Your task to perform on an android device: empty trash in the gmail app Image 0: 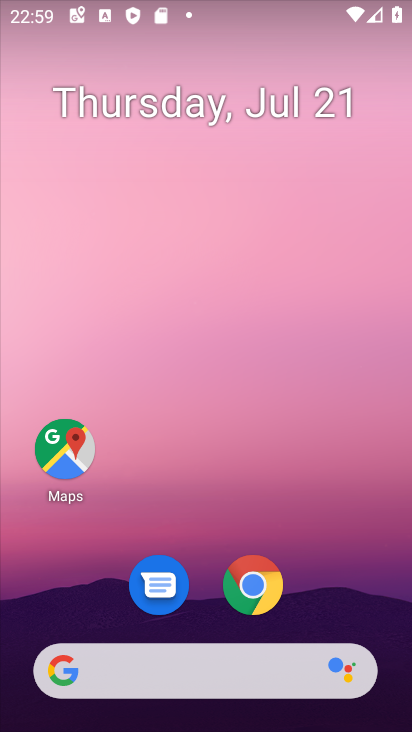
Step 0: drag from (220, 521) to (290, 9)
Your task to perform on an android device: empty trash in the gmail app Image 1: 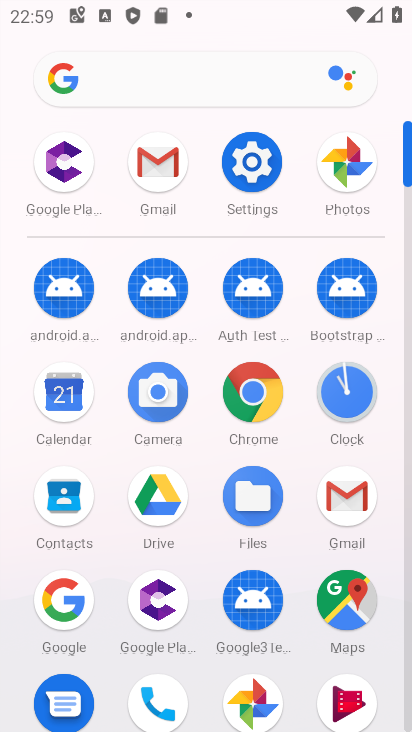
Step 1: click (163, 162)
Your task to perform on an android device: empty trash in the gmail app Image 2: 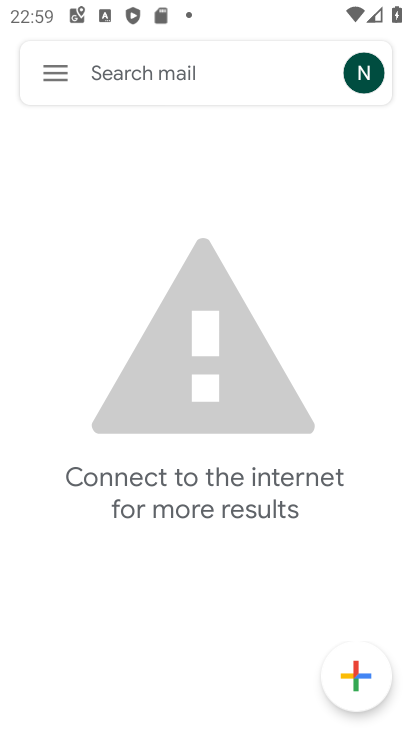
Step 2: click (58, 73)
Your task to perform on an android device: empty trash in the gmail app Image 3: 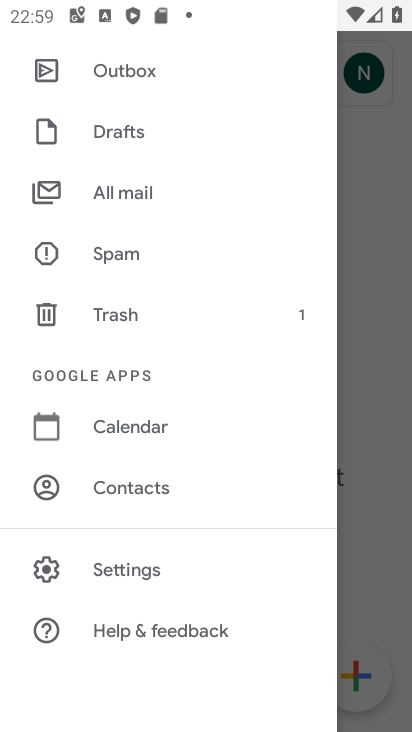
Step 3: click (115, 321)
Your task to perform on an android device: empty trash in the gmail app Image 4: 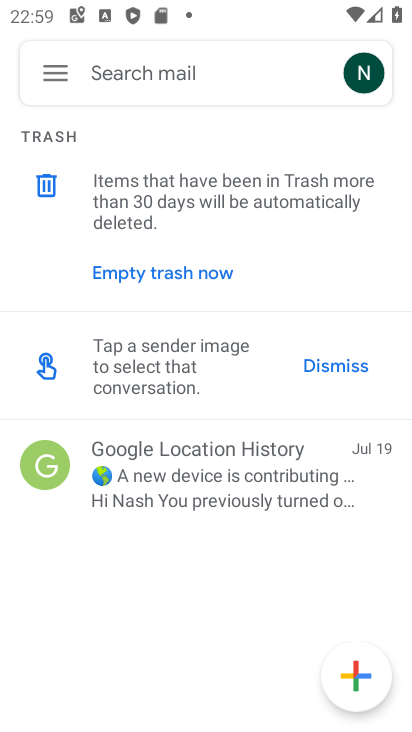
Step 4: click (169, 264)
Your task to perform on an android device: empty trash in the gmail app Image 5: 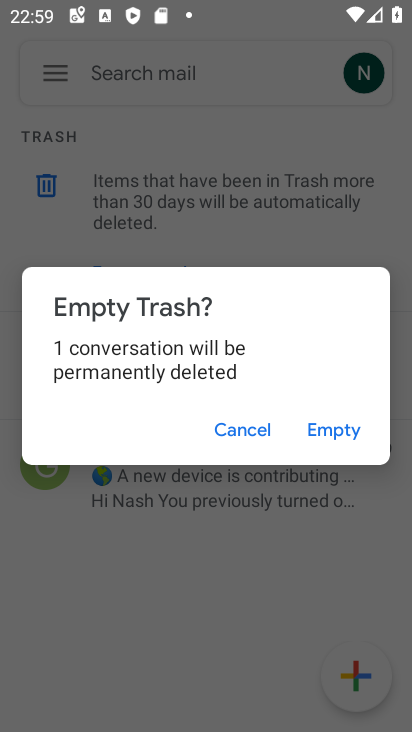
Step 5: click (333, 426)
Your task to perform on an android device: empty trash in the gmail app Image 6: 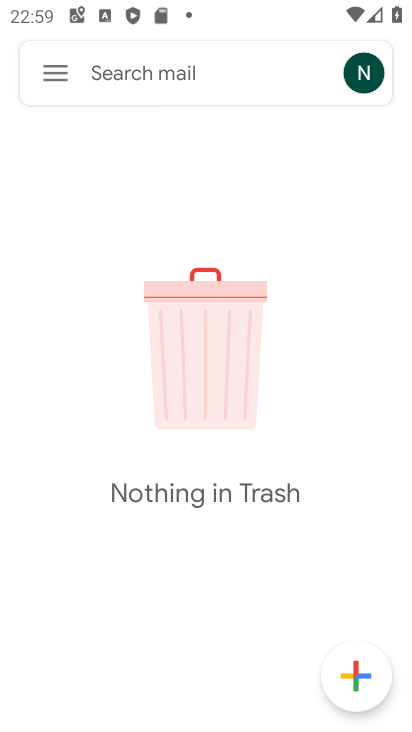
Step 6: task complete